Your task to perform on an android device: Open sound settings Image 0: 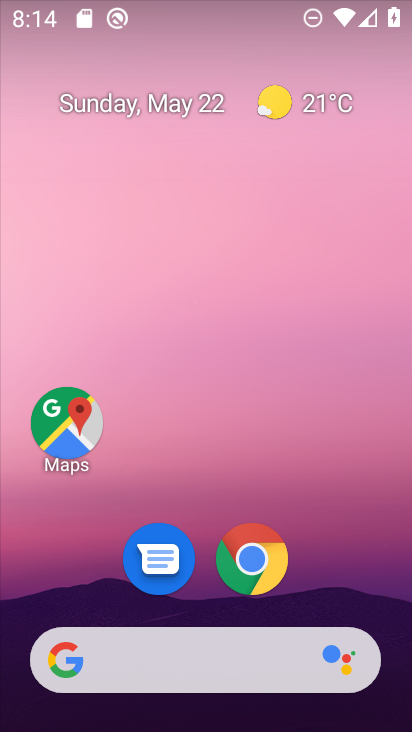
Step 0: press home button
Your task to perform on an android device: Open sound settings Image 1: 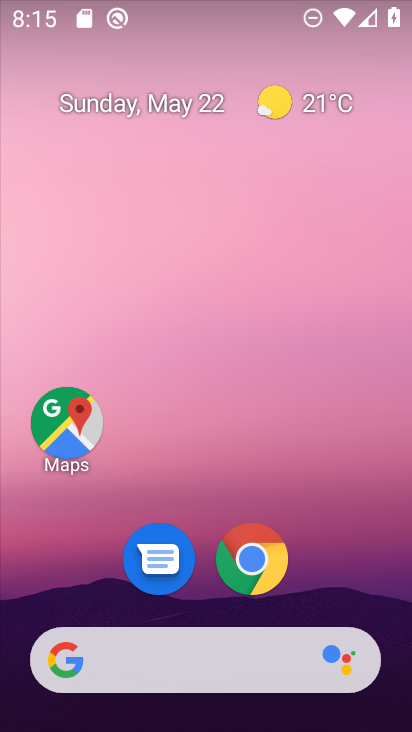
Step 1: drag from (251, 690) to (255, 287)
Your task to perform on an android device: Open sound settings Image 2: 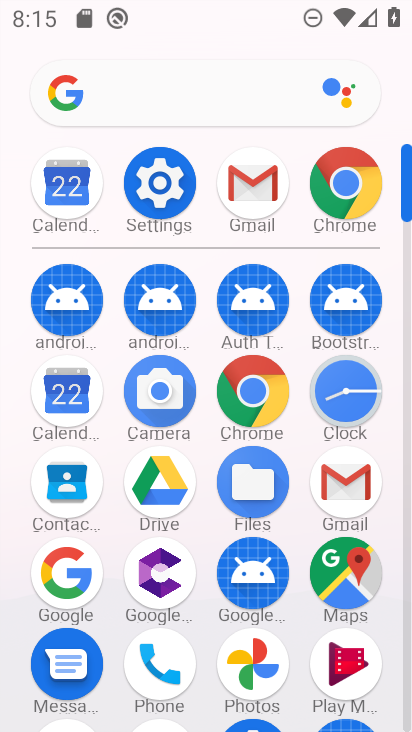
Step 2: click (174, 191)
Your task to perform on an android device: Open sound settings Image 3: 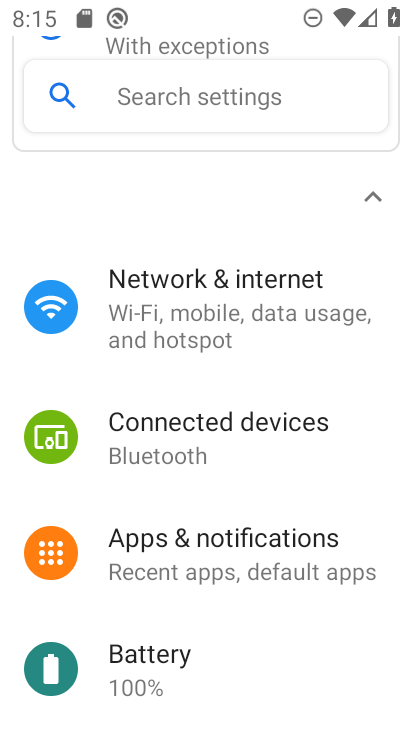
Step 3: click (178, 107)
Your task to perform on an android device: Open sound settings Image 4: 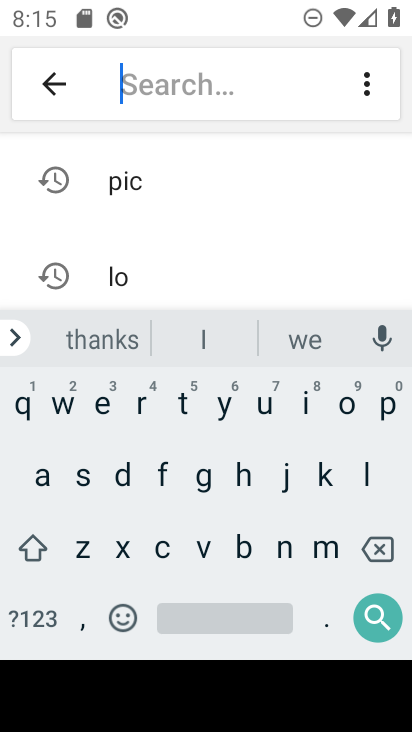
Step 4: click (84, 477)
Your task to perform on an android device: Open sound settings Image 5: 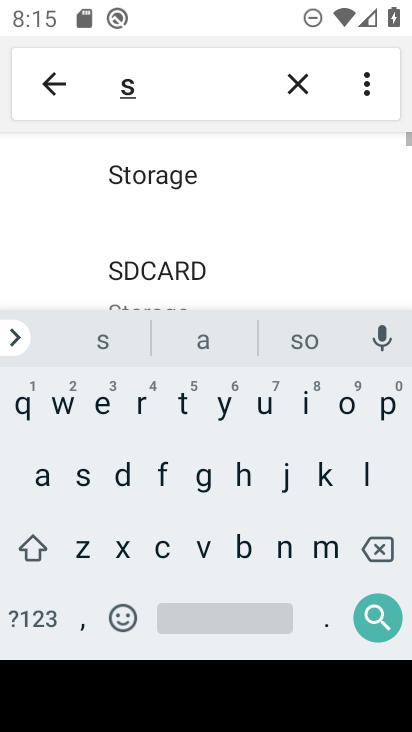
Step 5: click (347, 411)
Your task to perform on an android device: Open sound settings Image 6: 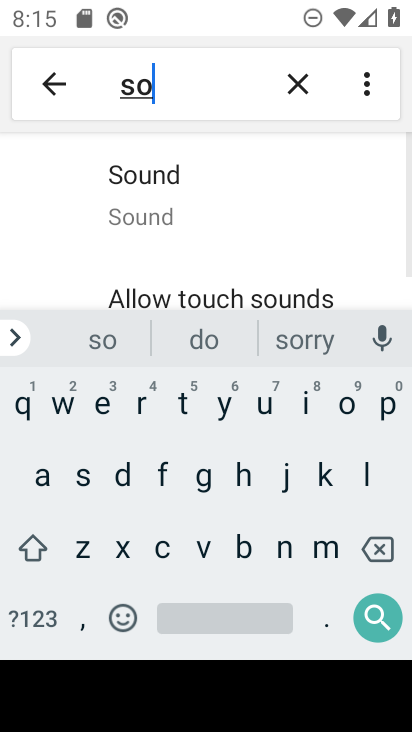
Step 6: click (186, 197)
Your task to perform on an android device: Open sound settings Image 7: 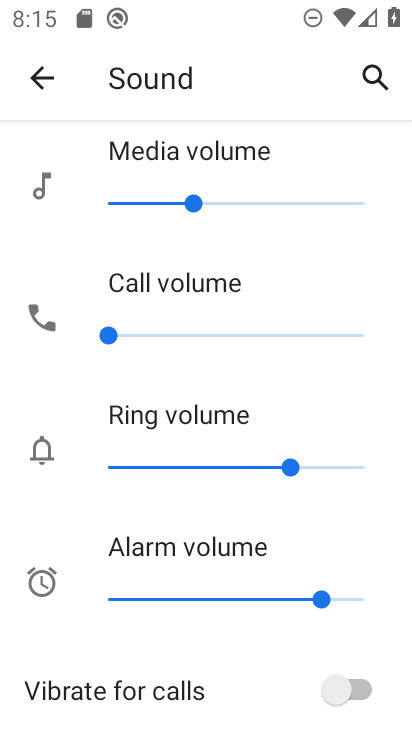
Step 7: task complete